Your task to perform on an android device: toggle pop-ups in chrome Image 0: 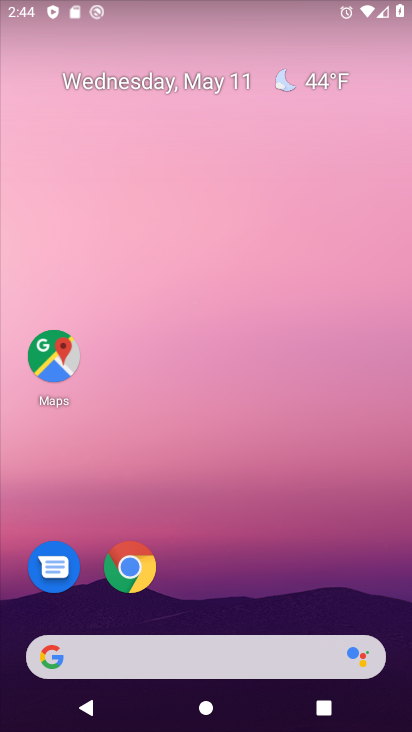
Step 0: drag from (257, 509) to (245, 22)
Your task to perform on an android device: toggle pop-ups in chrome Image 1: 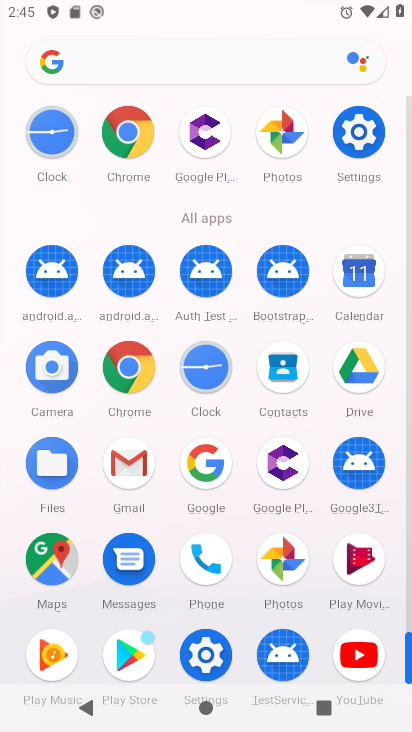
Step 1: click (126, 364)
Your task to perform on an android device: toggle pop-ups in chrome Image 2: 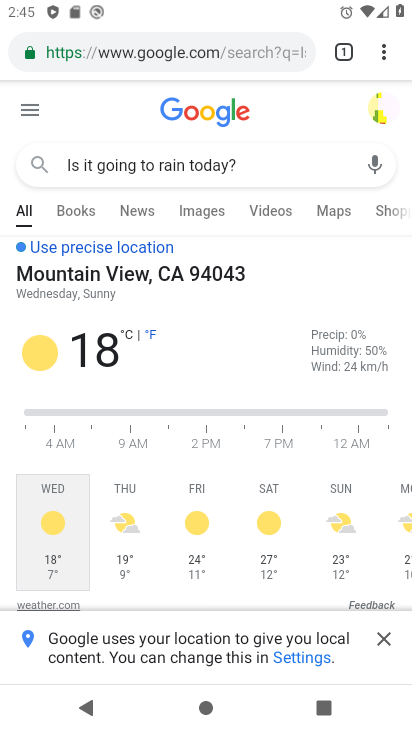
Step 2: drag from (386, 50) to (215, 605)
Your task to perform on an android device: toggle pop-ups in chrome Image 3: 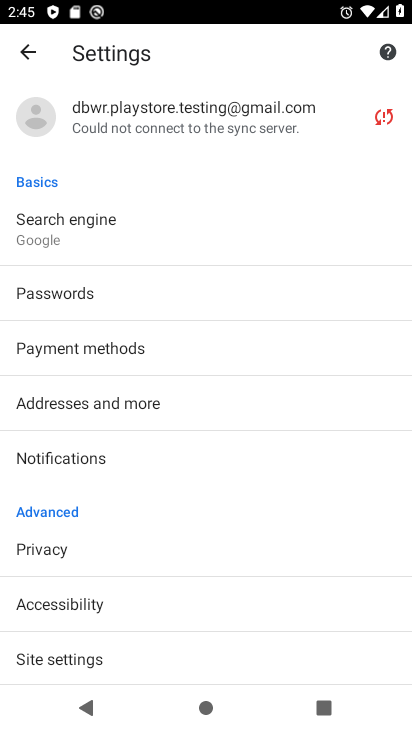
Step 3: drag from (202, 504) to (236, 226)
Your task to perform on an android device: toggle pop-ups in chrome Image 4: 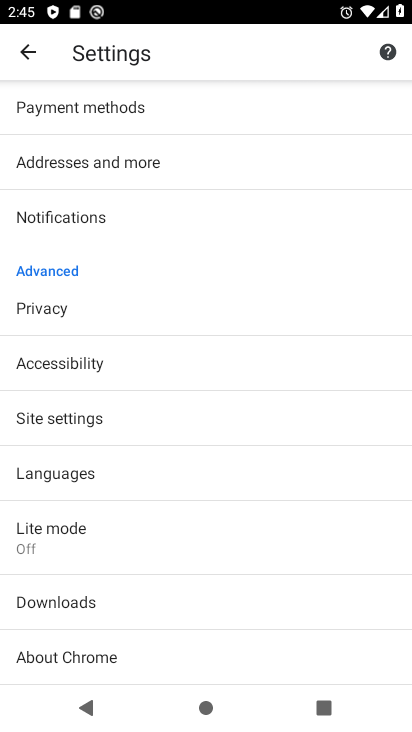
Step 4: drag from (229, 589) to (262, 246)
Your task to perform on an android device: toggle pop-ups in chrome Image 5: 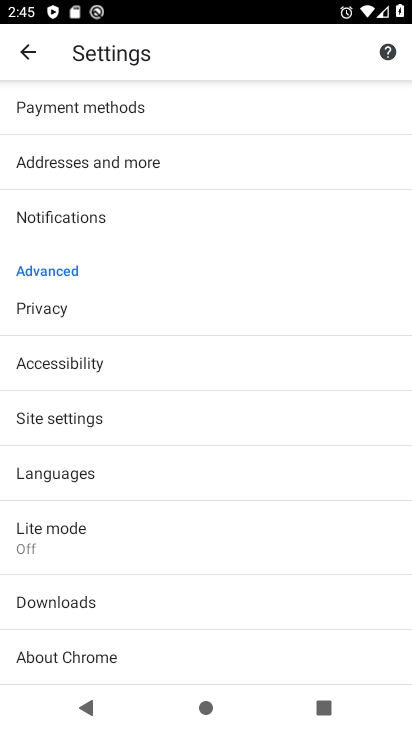
Step 5: click (88, 408)
Your task to perform on an android device: toggle pop-ups in chrome Image 6: 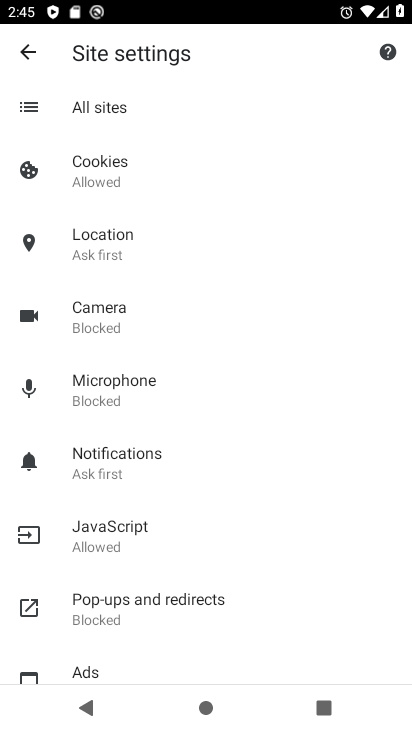
Step 6: click (127, 606)
Your task to perform on an android device: toggle pop-ups in chrome Image 7: 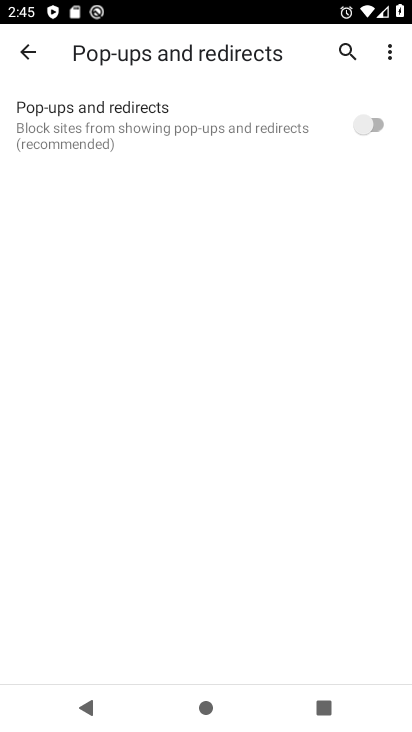
Step 7: click (365, 110)
Your task to perform on an android device: toggle pop-ups in chrome Image 8: 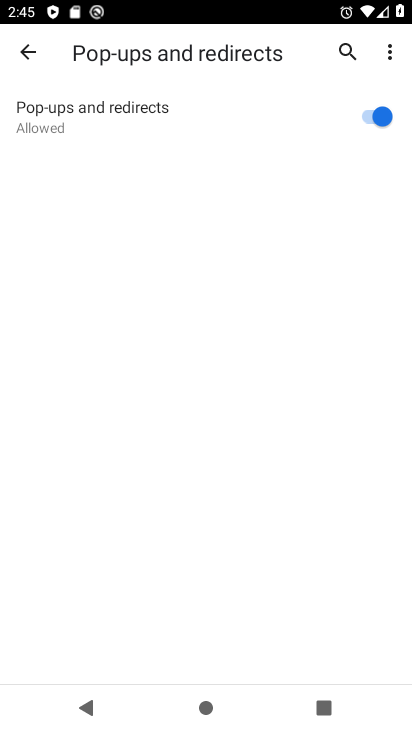
Step 8: task complete